Your task to perform on an android device: toggle pop-ups in chrome Image 0: 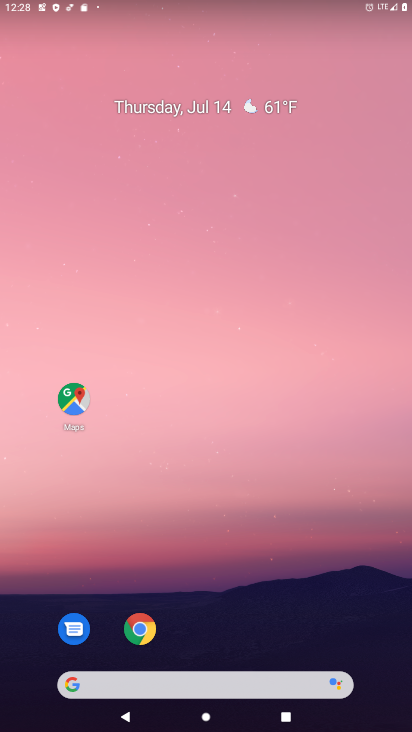
Step 0: click (139, 628)
Your task to perform on an android device: toggle pop-ups in chrome Image 1: 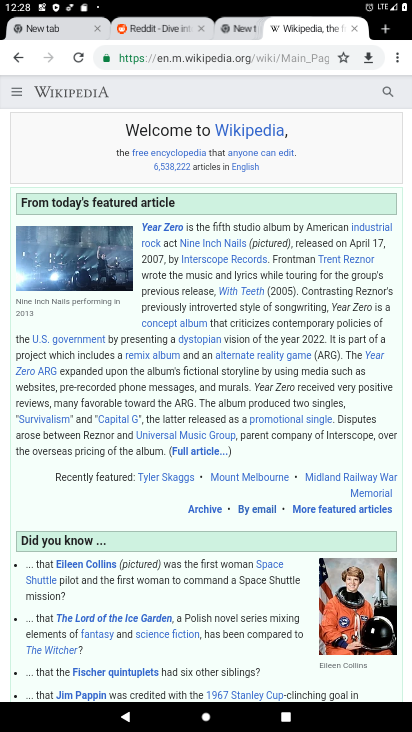
Step 1: click (397, 52)
Your task to perform on an android device: toggle pop-ups in chrome Image 2: 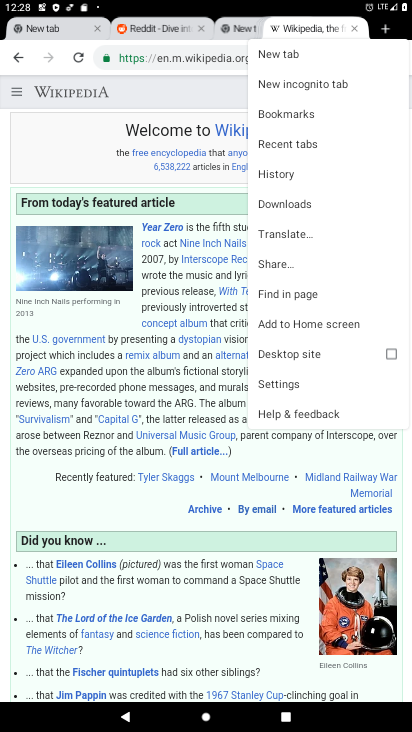
Step 2: click (284, 378)
Your task to perform on an android device: toggle pop-ups in chrome Image 3: 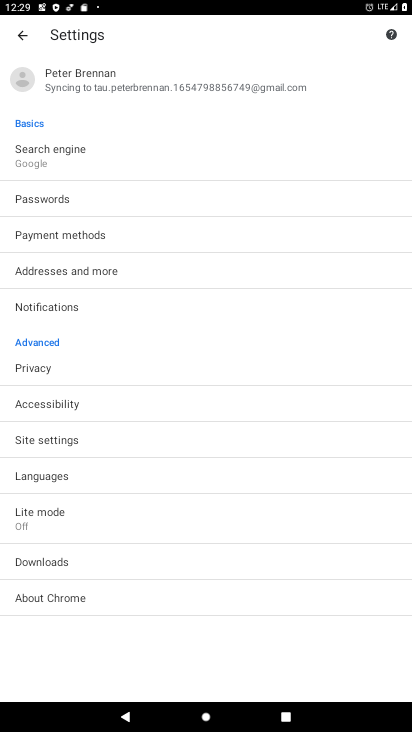
Step 3: click (53, 439)
Your task to perform on an android device: toggle pop-ups in chrome Image 4: 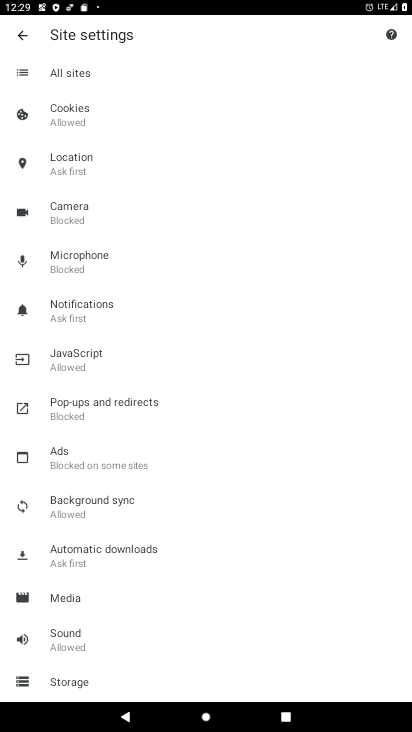
Step 4: click (95, 400)
Your task to perform on an android device: toggle pop-ups in chrome Image 5: 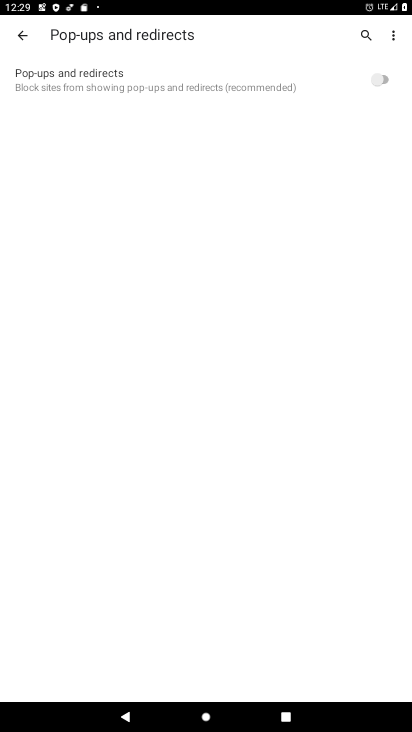
Step 5: click (379, 76)
Your task to perform on an android device: toggle pop-ups in chrome Image 6: 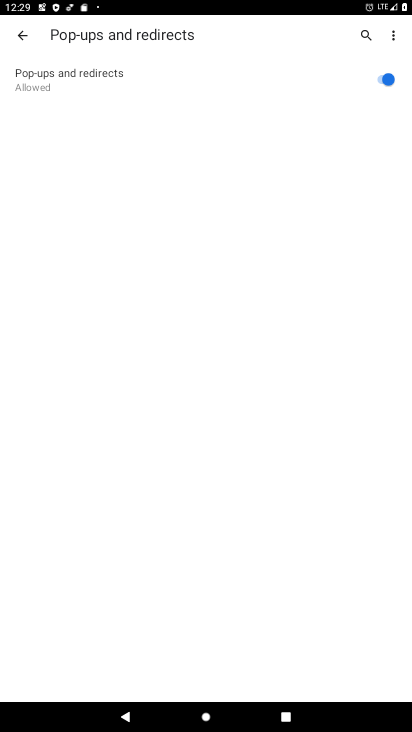
Step 6: task complete